Your task to perform on an android device: read, delete, or share a saved page in the chrome app Image 0: 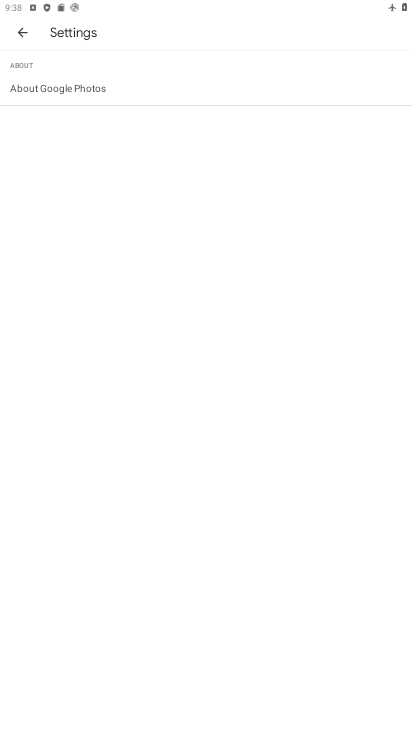
Step 0: click (28, 29)
Your task to perform on an android device: read, delete, or share a saved page in the chrome app Image 1: 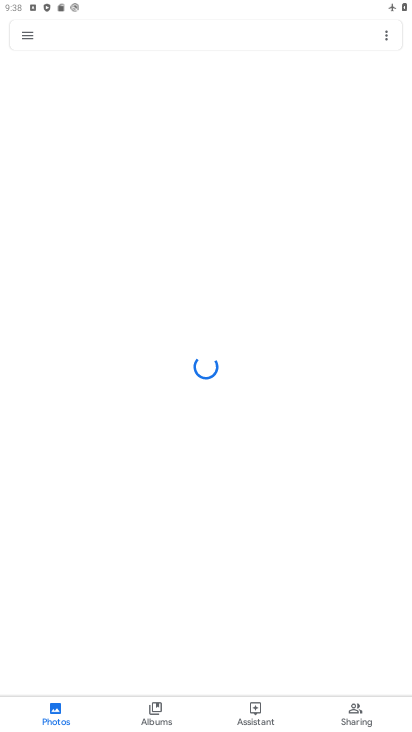
Step 1: press home button
Your task to perform on an android device: read, delete, or share a saved page in the chrome app Image 2: 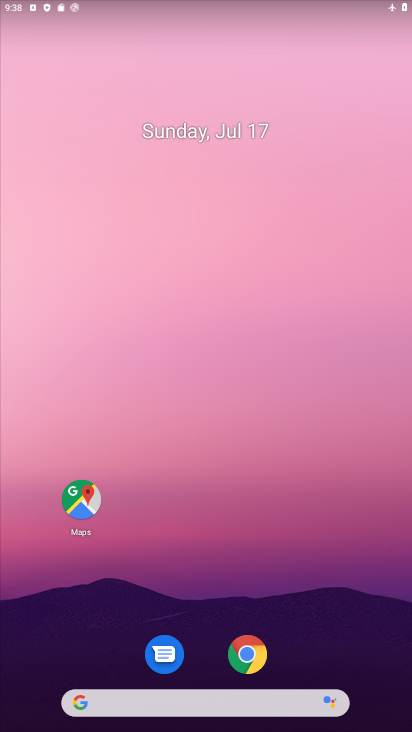
Step 2: click (250, 649)
Your task to perform on an android device: read, delete, or share a saved page in the chrome app Image 3: 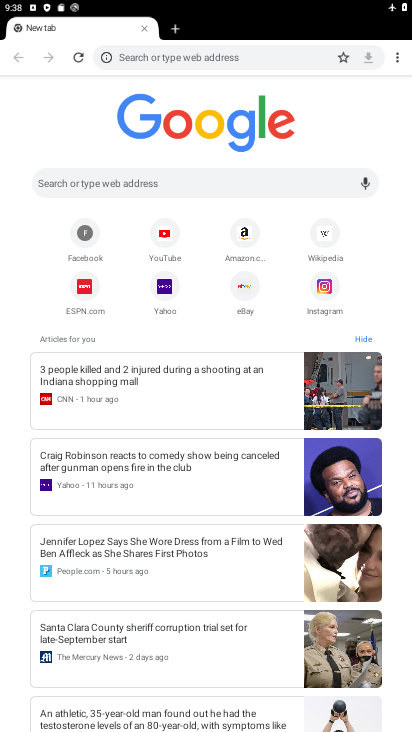
Step 3: click (393, 55)
Your task to perform on an android device: read, delete, or share a saved page in the chrome app Image 4: 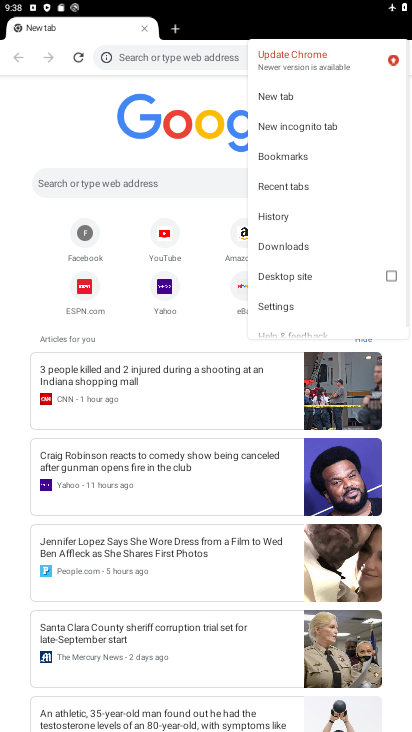
Step 4: click (301, 253)
Your task to perform on an android device: read, delete, or share a saved page in the chrome app Image 5: 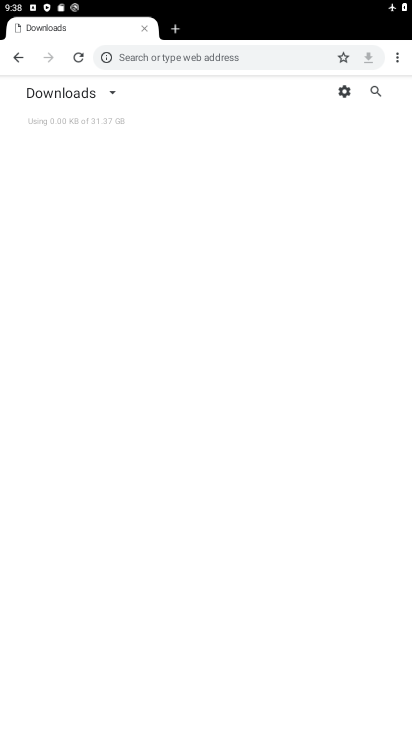
Step 5: click (106, 89)
Your task to perform on an android device: read, delete, or share a saved page in the chrome app Image 6: 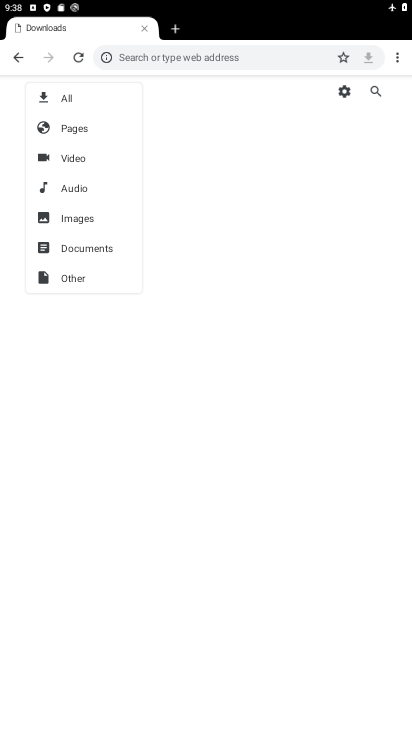
Step 6: click (77, 134)
Your task to perform on an android device: read, delete, or share a saved page in the chrome app Image 7: 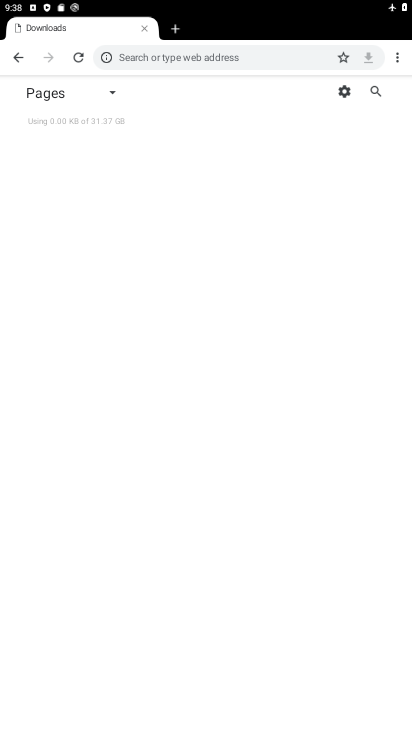
Step 7: task complete